Your task to perform on an android device: open device folders in google photos Image 0: 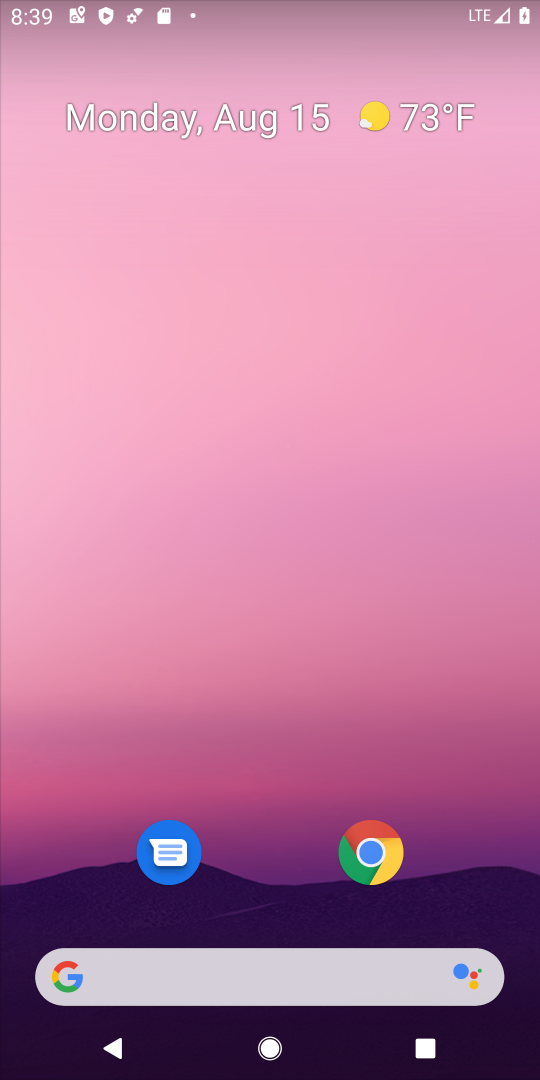
Step 0: drag from (221, 981) to (145, 0)
Your task to perform on an android device: open device folders in google photos Image 1: 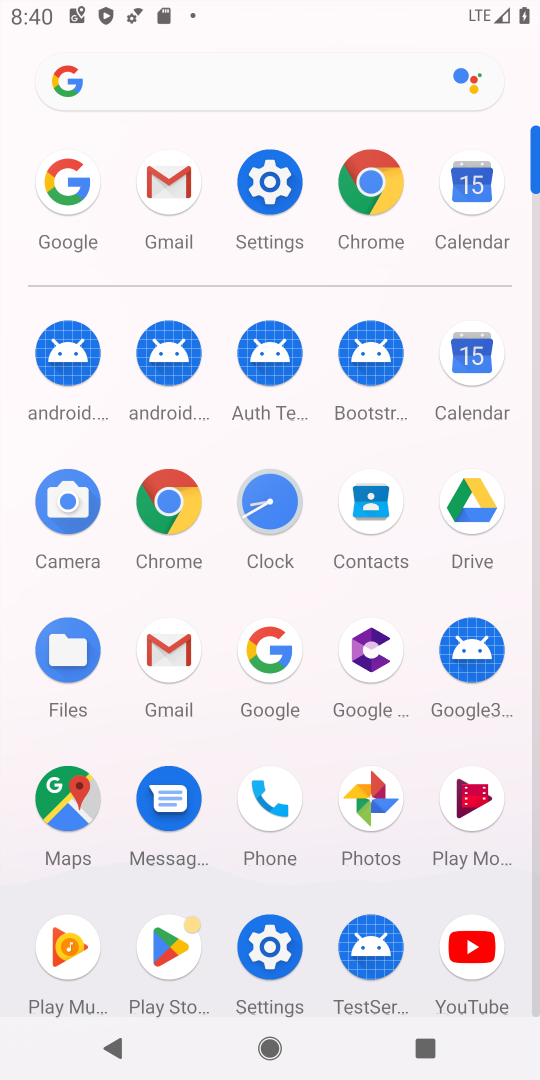
Step 1: click (370, 799)
Your task to perform on an android device: open device folders in google photos Image 2: 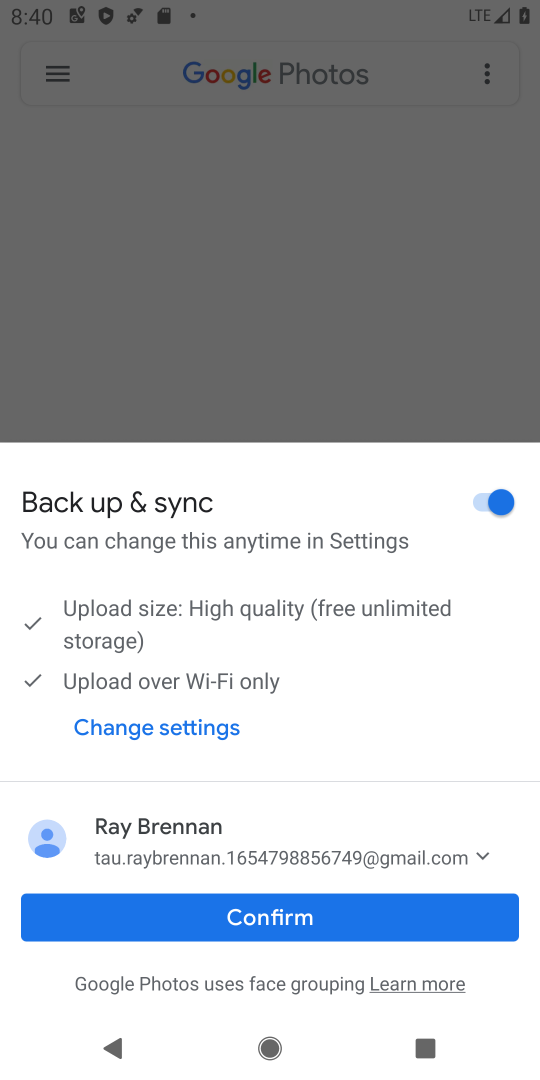
Step 2: click (274, 916)
Your task to perform on an android device: open device folders in google photos Image 3: 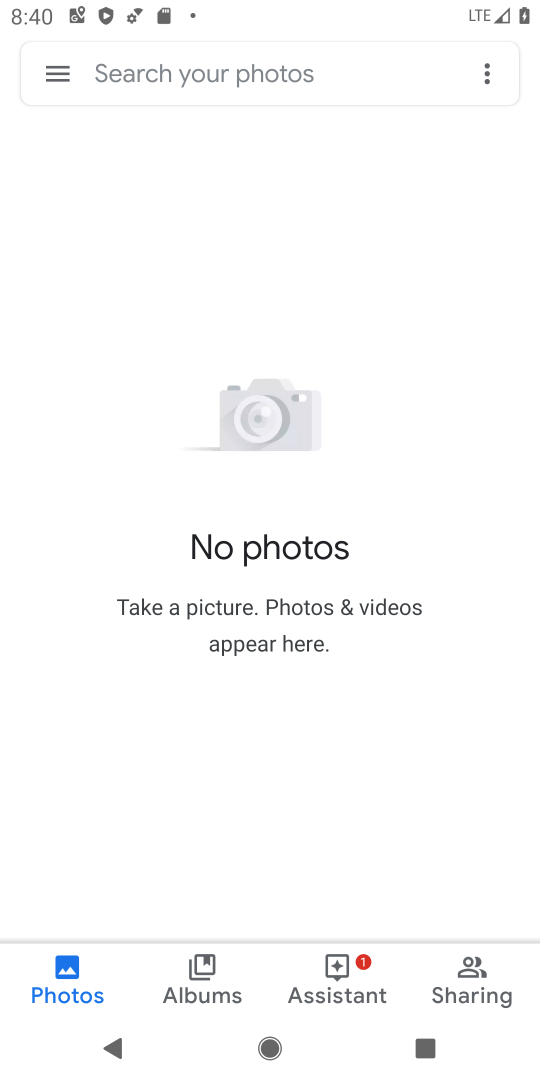
Step 3: click (59, 77)
Your task to perform on an android device: open device folders in google photos Image 4: 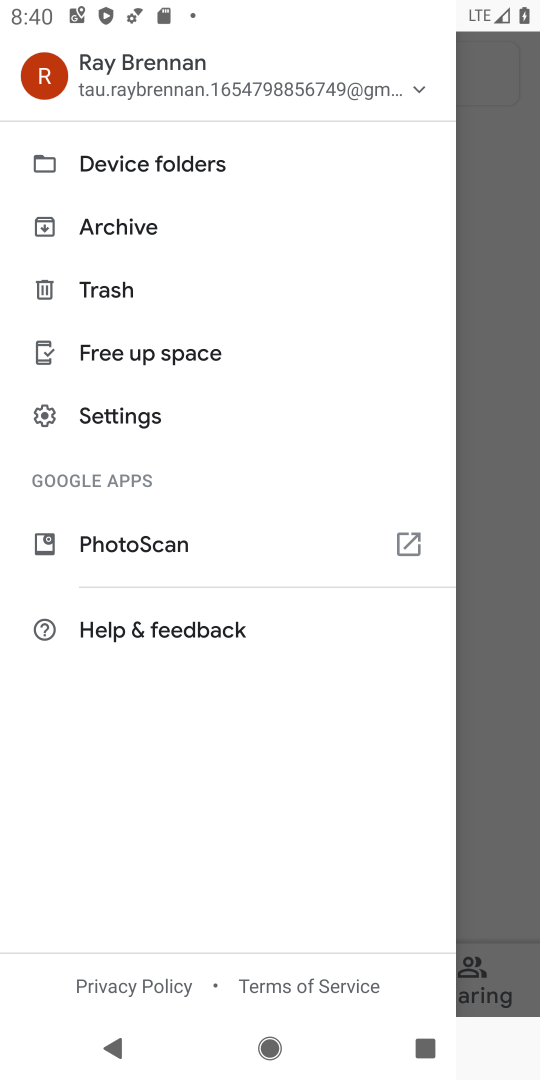
Step 4: click (106, 164)
Your task to perform on an android device: open device folders in google photos Image 5: 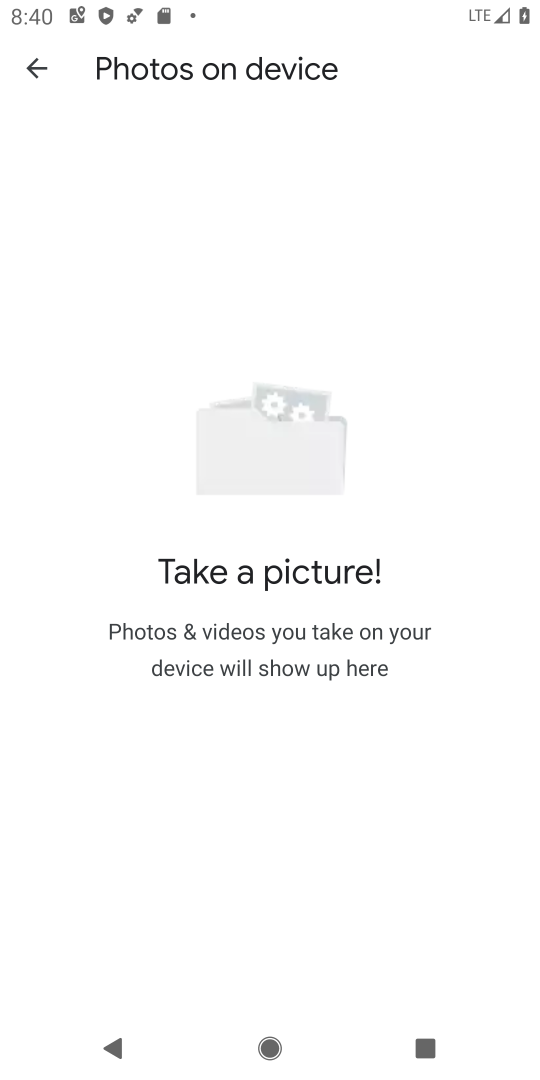
Step 5: task complete